Your task to perform on an android device: Search for seafood restaurants on Google Maps Image 0: 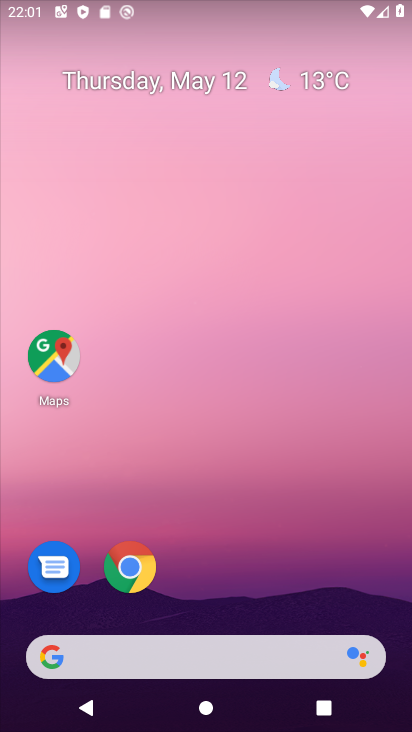
Step 0: click (56, 348)
Your task to perform on an android device: Search for seafood restaurants on Google Maps Image 1: 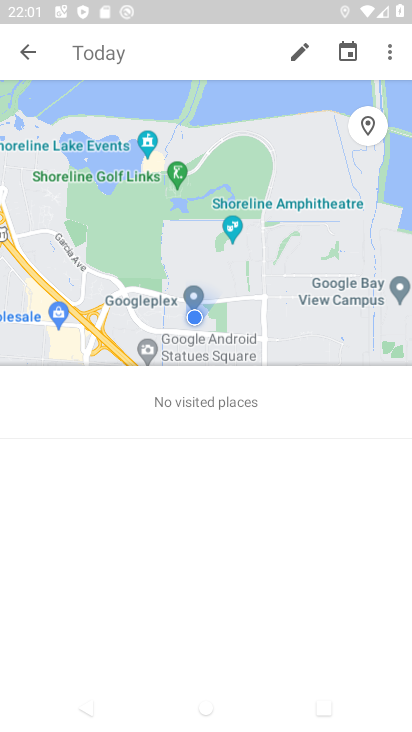
Step 1: task complete